Your task to perform on an android device: Open the calendar app, open the side menu, and click the "Day" option Image 0: 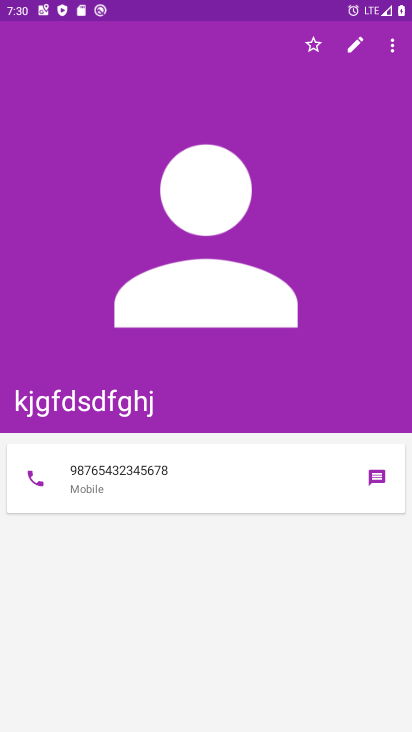
Step 0: press home button
Your task to perform on an android device: Open the calendar app, open the side menu, and click the "Day" option Image 1: 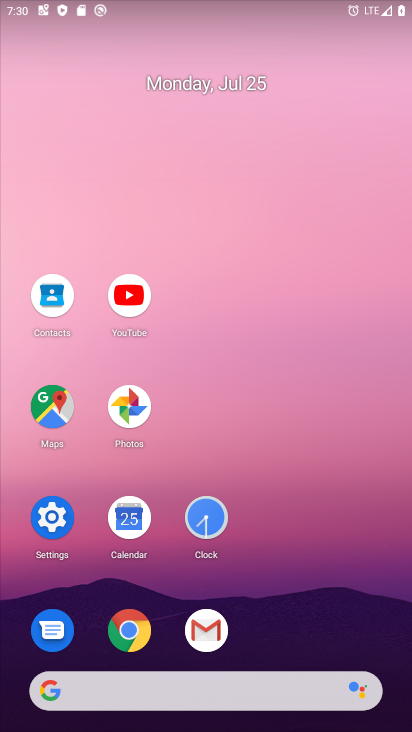
Step 1: click (134, 521)
Your task to perform on an android device: Open the calendar app, open the side menu, and click the "Day" option Image 2: 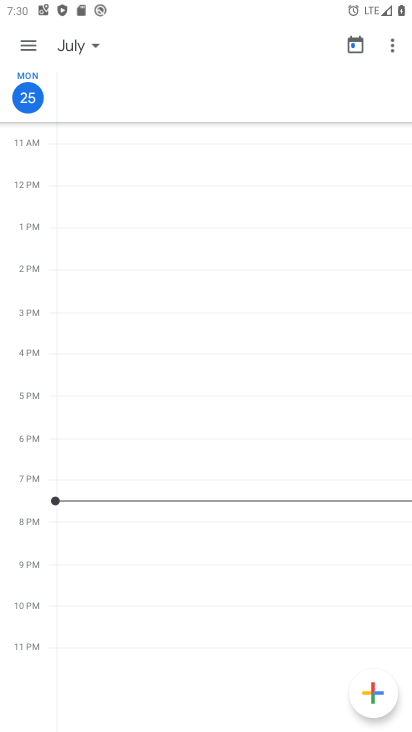
Step 2: click (26, 45)
Your task to perform on an android device: Open the calendar app, open the side menu, and click the "Day" option Image 3: 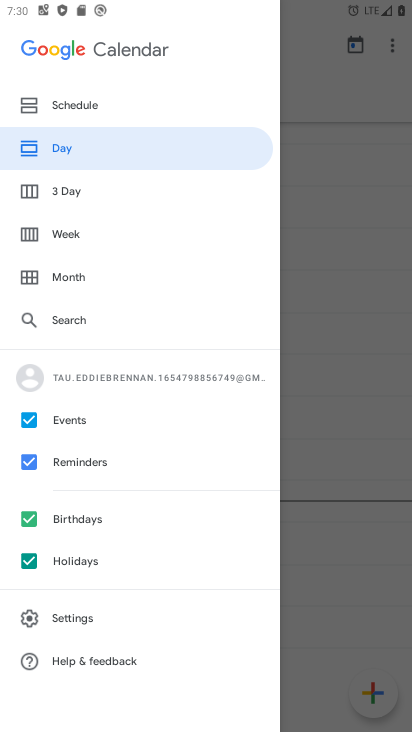
Step 3: click (61, 152)
Your task to perform on an android device: Open the calendar app, open the side menu, and click the "Day" option Image 4: 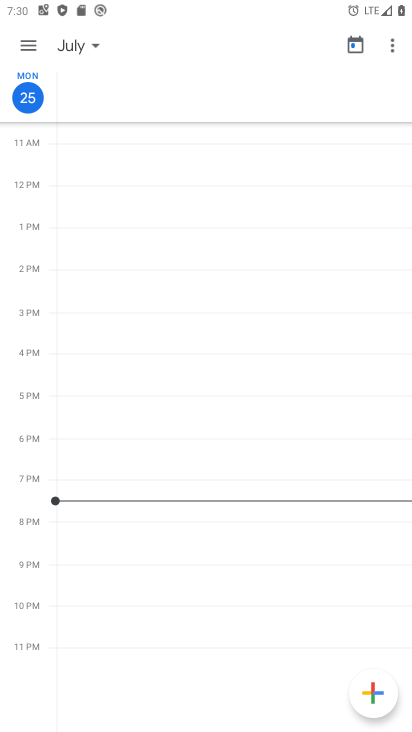
Step 4: task complete